Your task to perform on an android device: Open Chrome and go to the settings page Image 0: 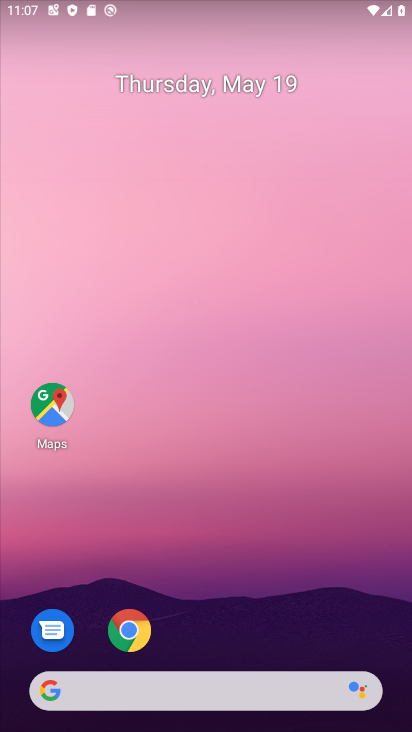
Step 0: click (130, 629)
Your task to perform on an android device: Open Chrome and go to the settings page Image 1: 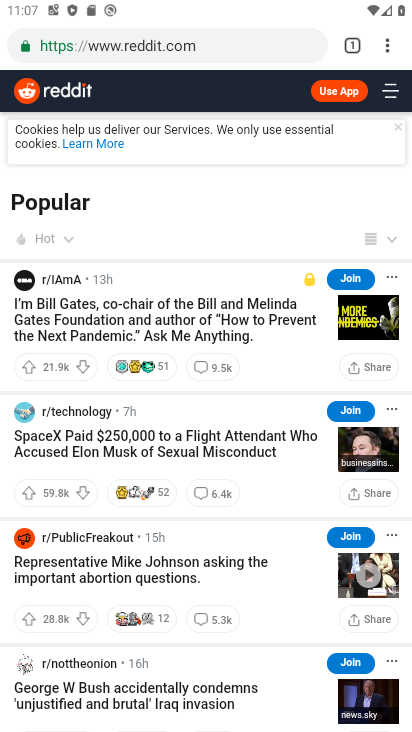
Step 1: click (387, 44)
Your task to perform on an android device: Open Chrome and go to the settings page Image 2: 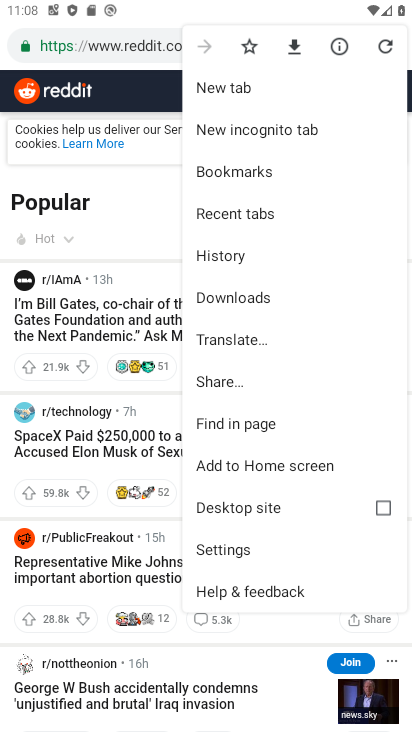
Step 2: click (218, 551)
Your task to perform on an android device: Open Chrome and go to the settings page Image 3: 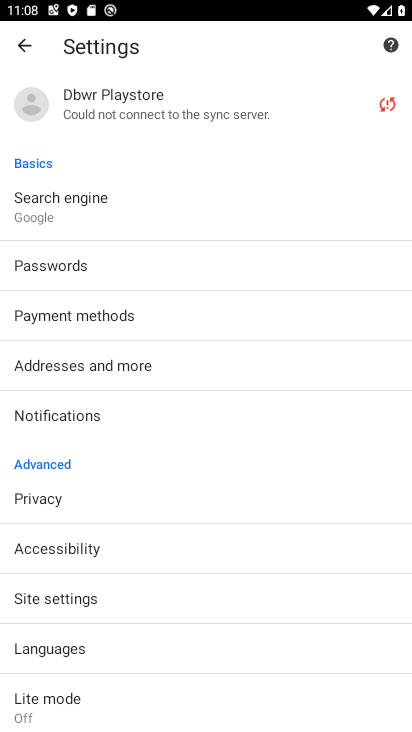
Step 3: task complete